Your task to perform on an android device: Open Google Chrome and open the bookmarks view Image 0: 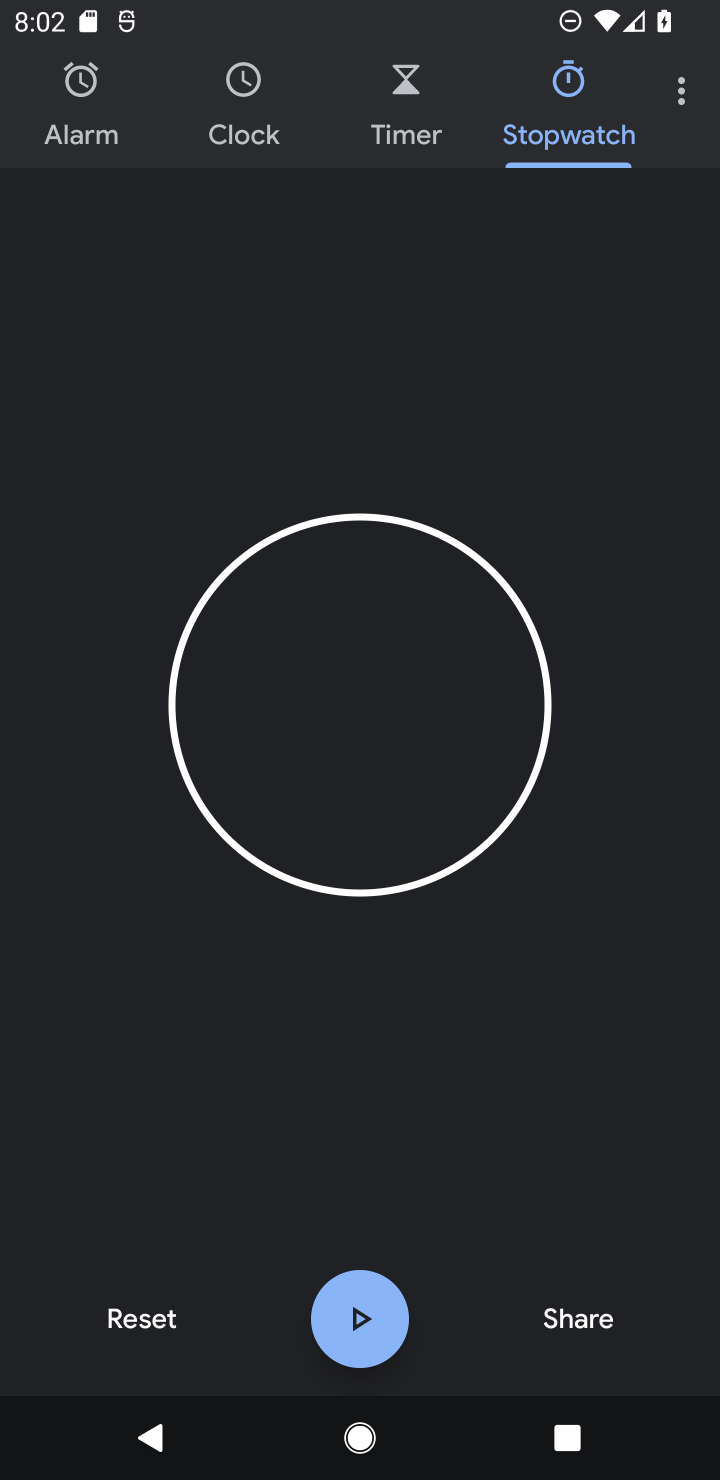
Step 0: press home button
Your task to perform on an android device: Open Google Chrome and open the bookmarks view Image 1: 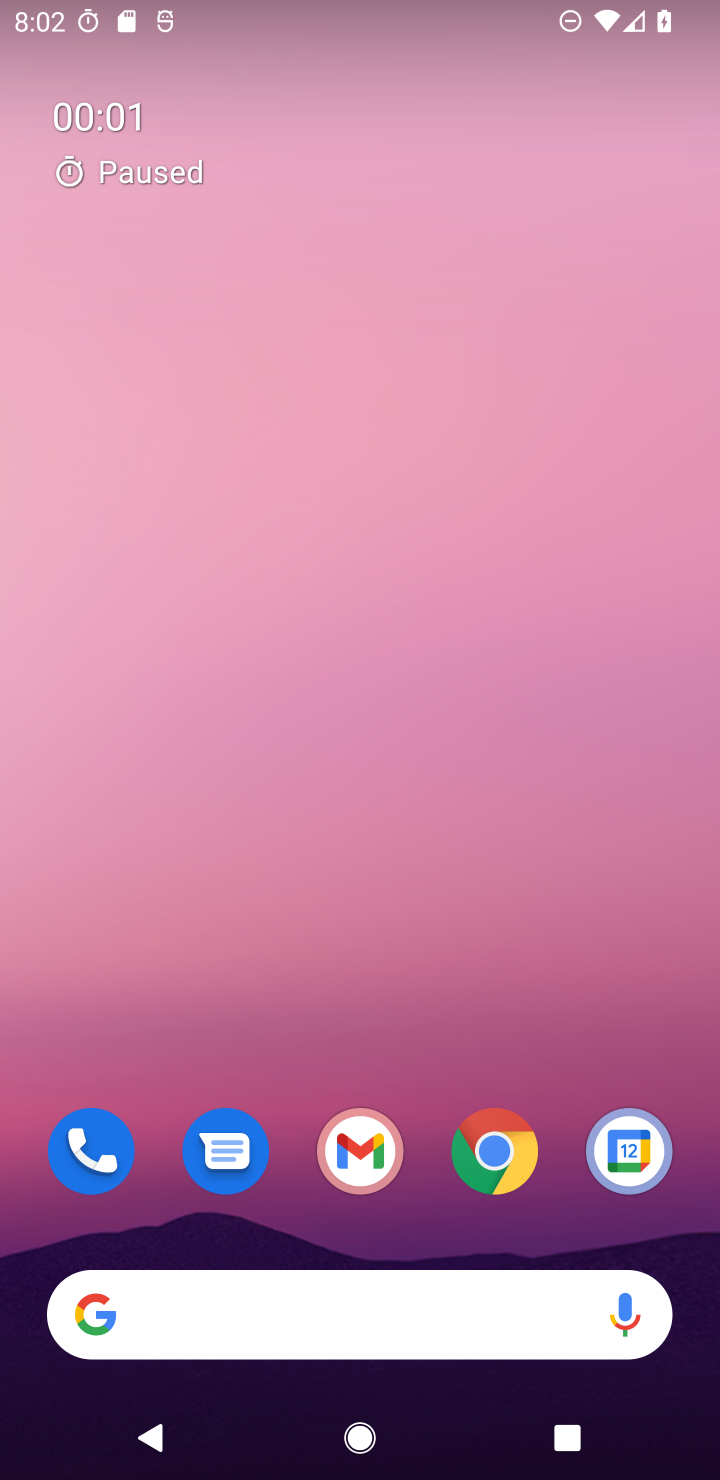
Step 1: drag from (449, 979) to (332, 17)
Your task to perform on an android device: Open Google Chrome and open the bookmarks view Image 2: 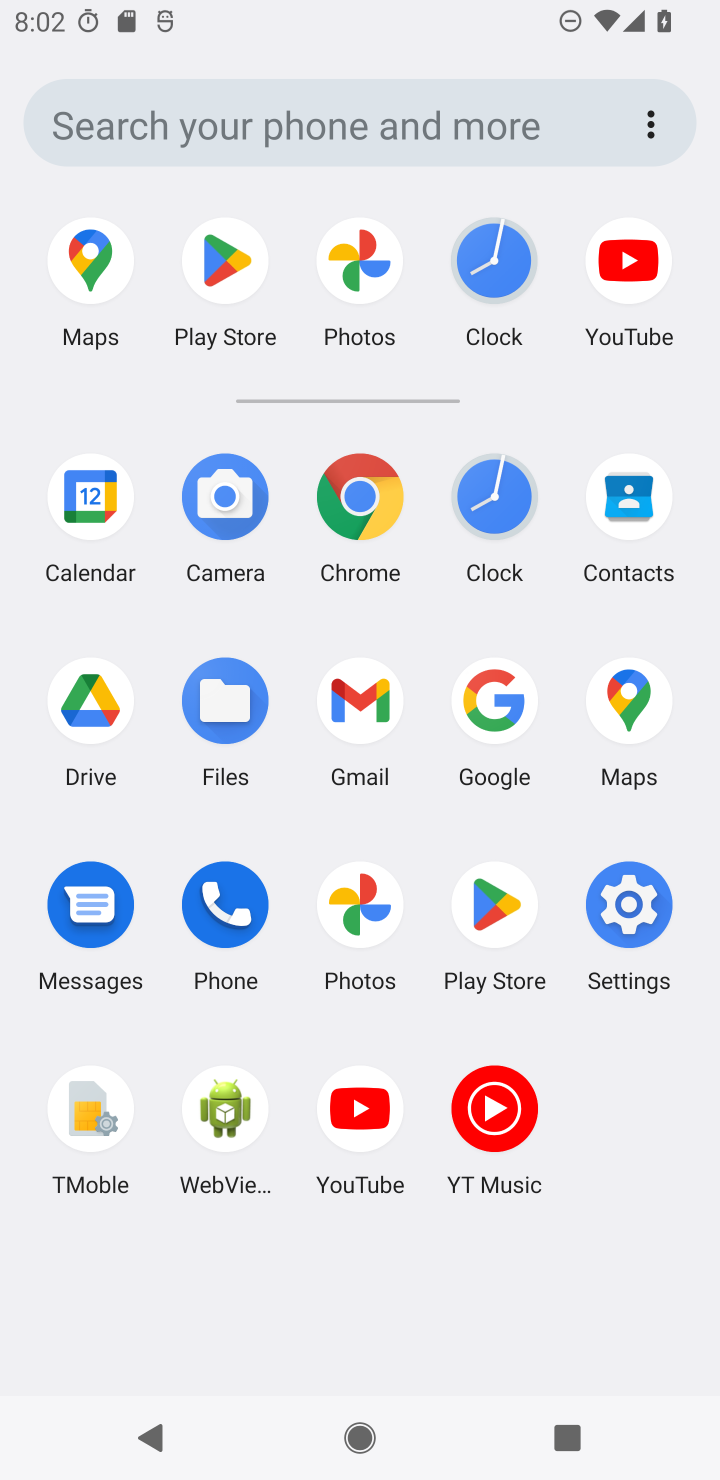
Step 2: click (365, 505)
Your task to perform on an android device: Open Google Chrome and open the bookmarks view Image 3: 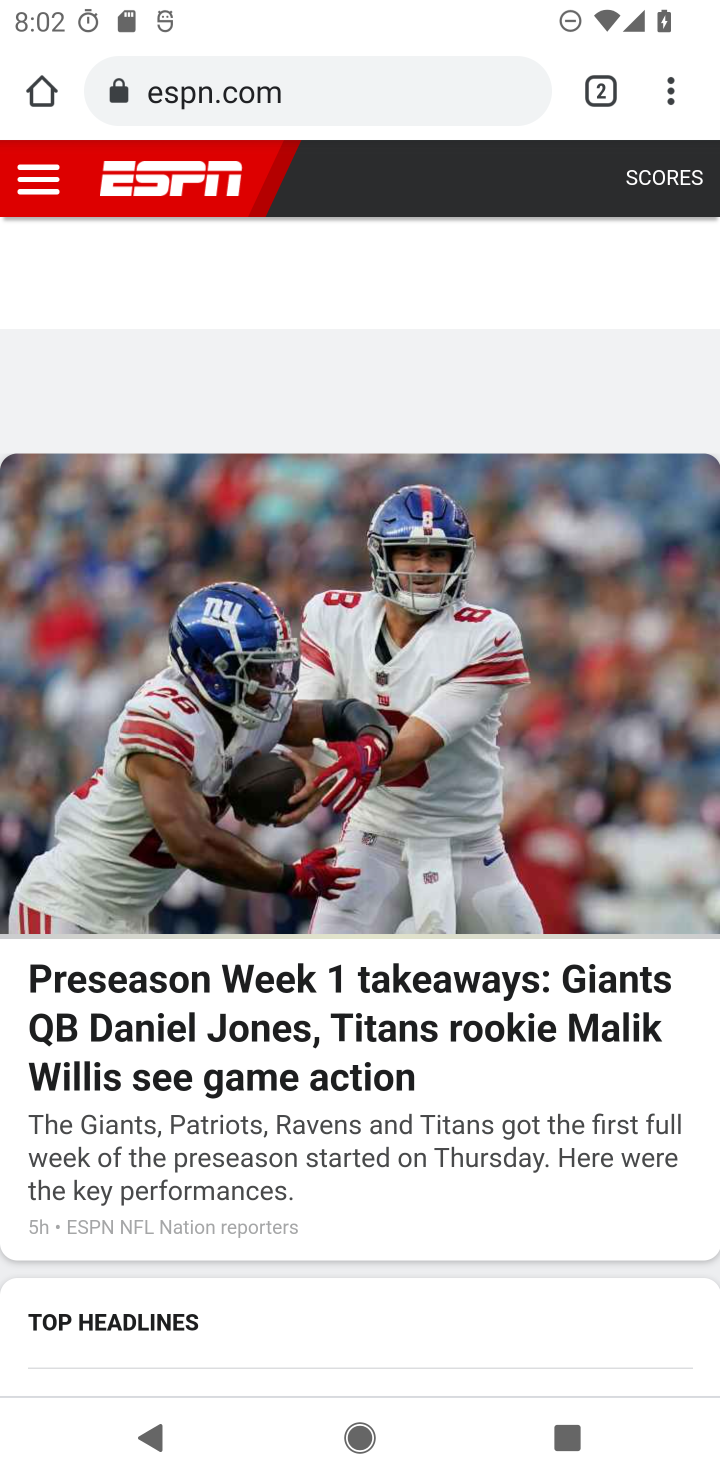
Step 3: task complete